Your task to perform on an android device: Go to eBay Image 0: 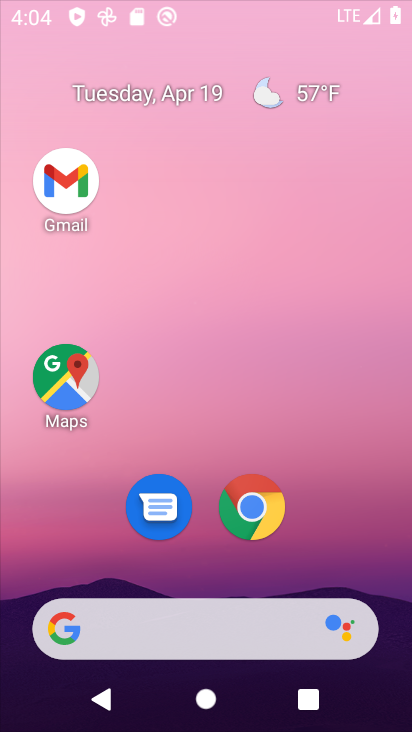
Step 0: drag from (192, 578) to (279, 151)
Your task to perform on an android device: Go to eBay Image 1: 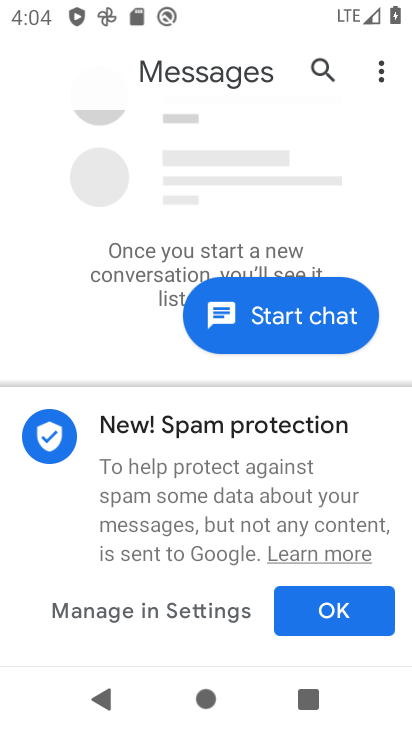
Step 1: press home button
Your task to perform on an android device: Go to eBay Image 2: 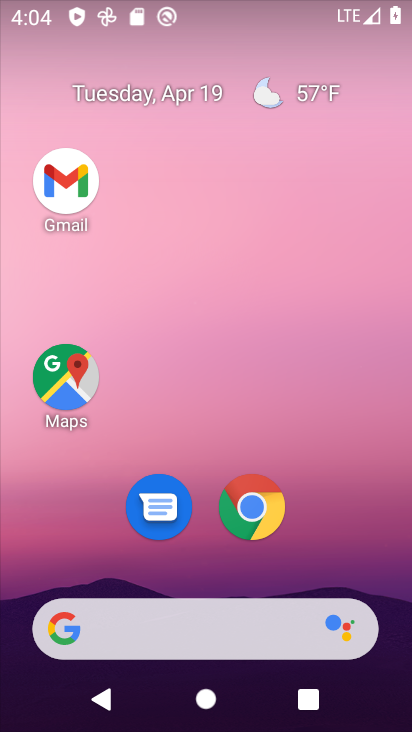
Step 2: drag from (196, 571) to (268, 133)
Your task to perform on an android device: Go to eBay Image 3: 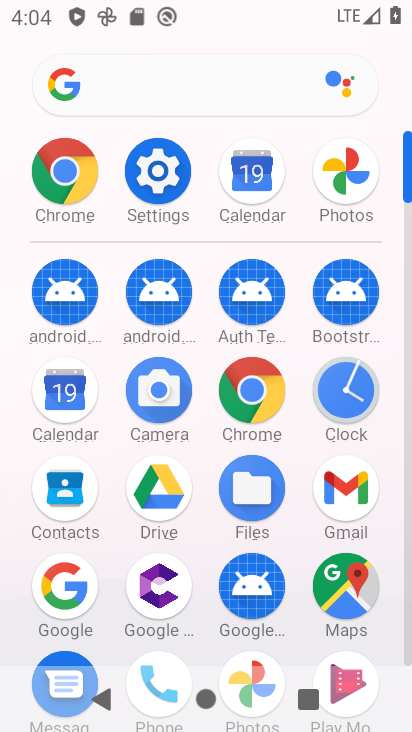
Step 3: click (69, 587)
Your task to perform on an android device: Go to eBay Image 4: 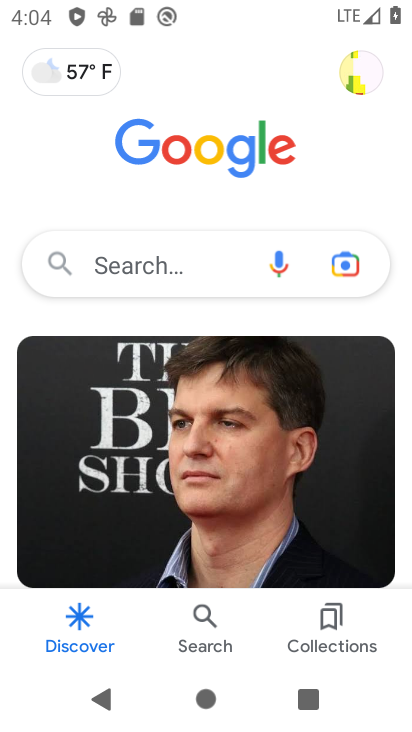
Step 4: task complete